Your task to perform on an android device: see tabs open on other devices in the chrome app Image 0: 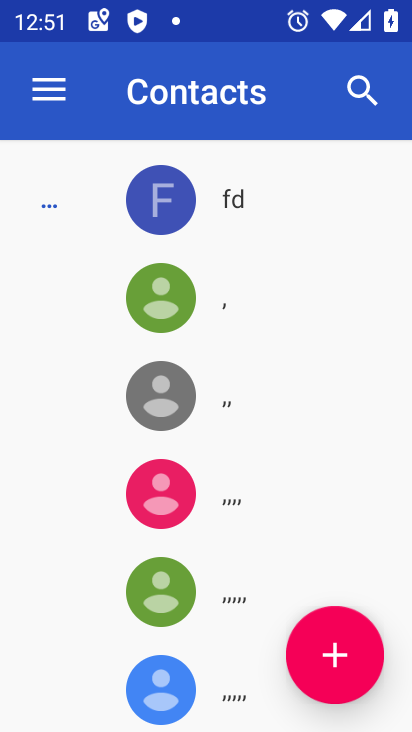
Step 0: press home button
Your task to perform on an android device: see tabs open on other devices in the chrome app Image 1: 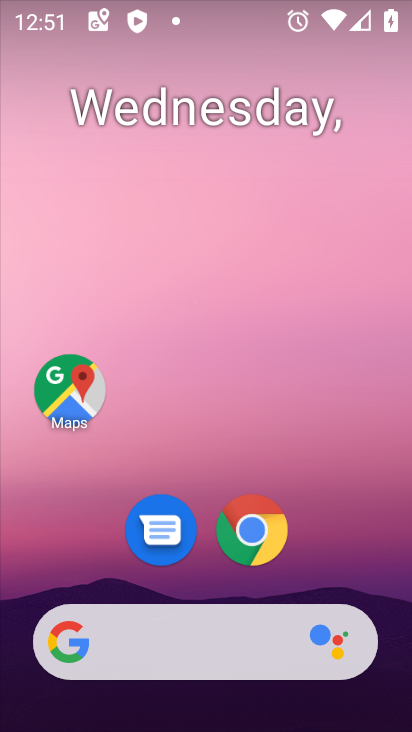
Step 1: click (255, 534)
Your task to perform on an android device: see tabs open on other devices in the chrome app Image 2: 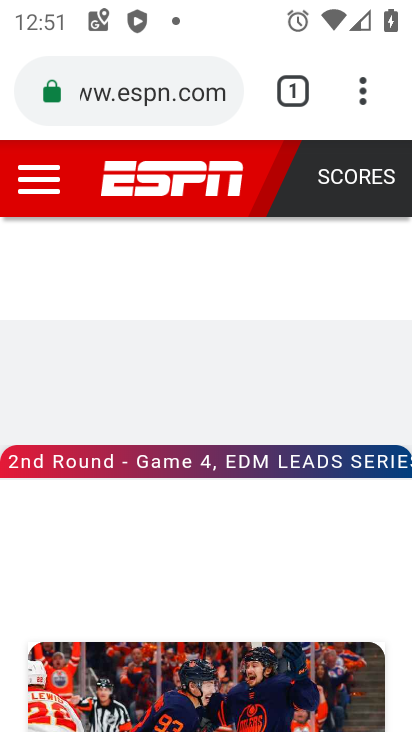
Step 2: click (362, 98)
Your task to perform on an android device: see tabs open on other devices in the chrome app Image 3: 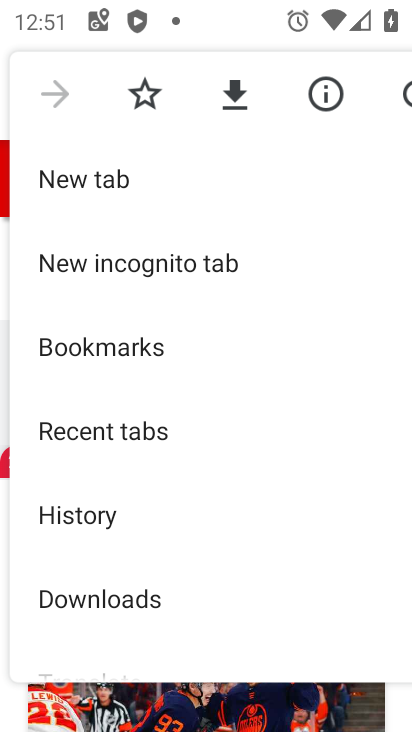
Step 3: click (115, 441)
Your task to perform on an android device: see tabs open on other devices in the chrome app Image 4: 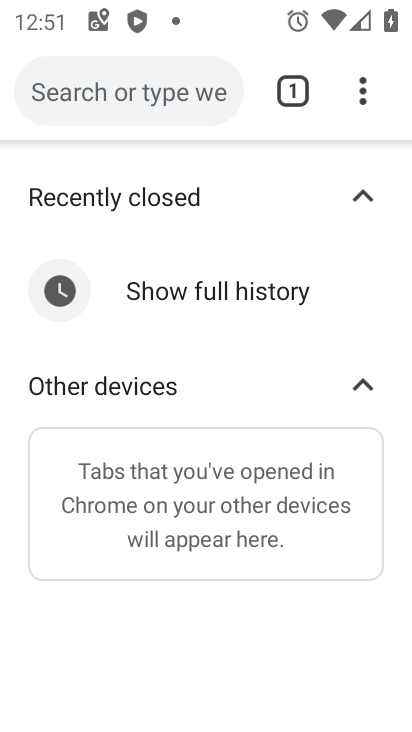
Step 4: task complete